Your task to perform on an android device: What's on my calendar tomorrow? Image 0: 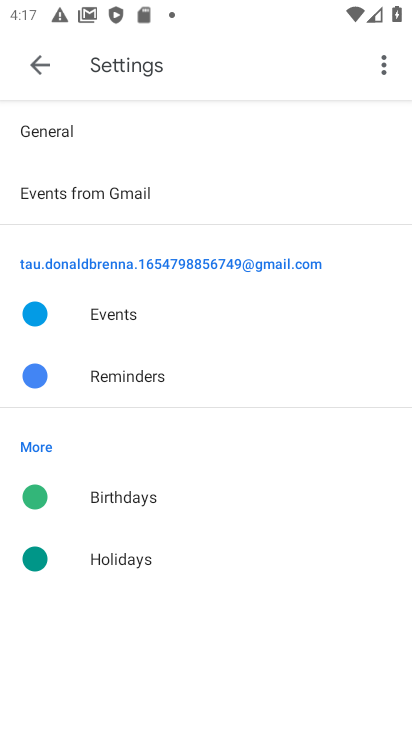
Step 0: press home button
Your task to perform on an android device: What's on my calendar tomorrow? Image 1: 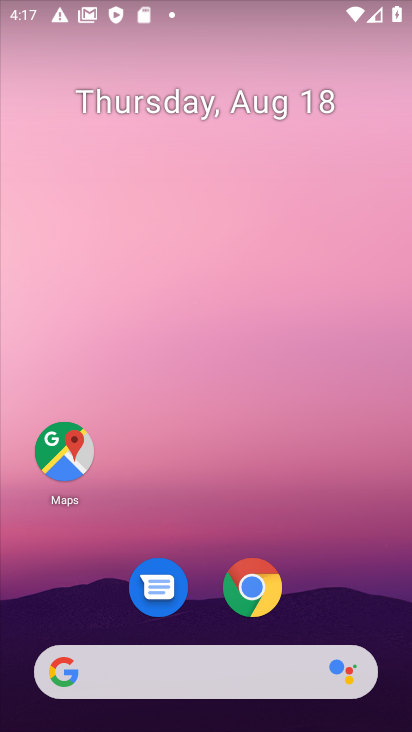
Step 1: drag from (349, 487) to (298, 87)
Your task to perform on an android device: What's on my calendar tomorrow? Image 2: 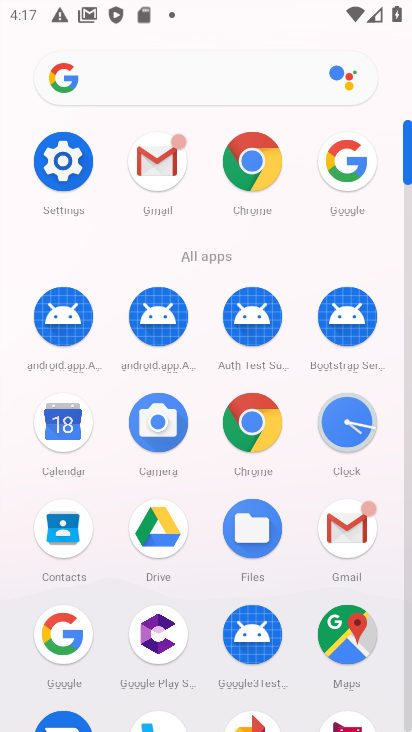
Step 2: click (54, 416)
Your task to perform on an android device: What's on my calendar tomorrow? Image 3: 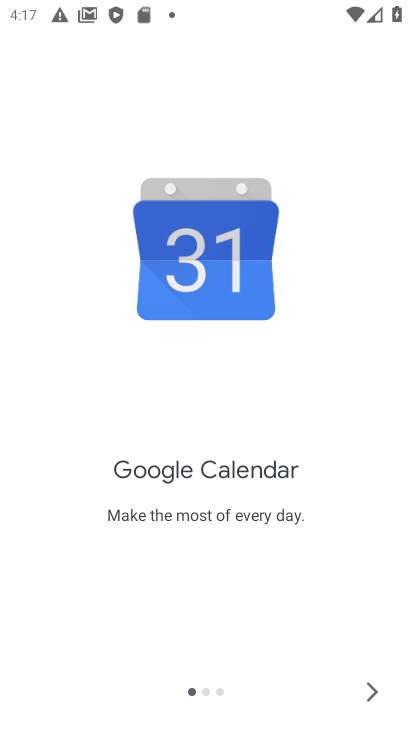
Step 3: click (369, 685)
Your task to perform on an android device: What's on my calendar tomorrow? Image 4: 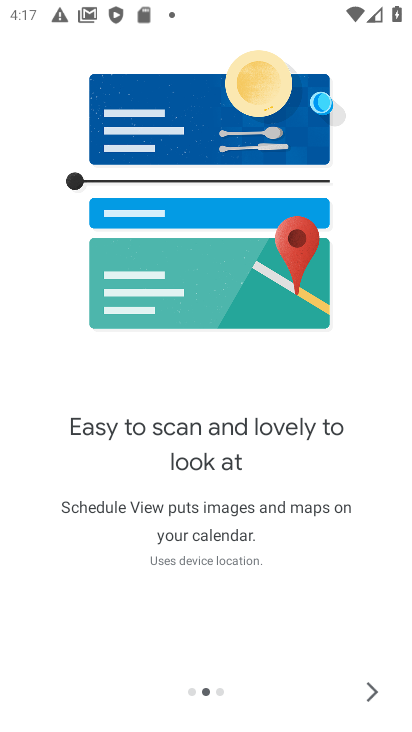
Step 4: click (369, 685)
Your task to perform on an android device: What's on my calendar tomorrow? Image 5: 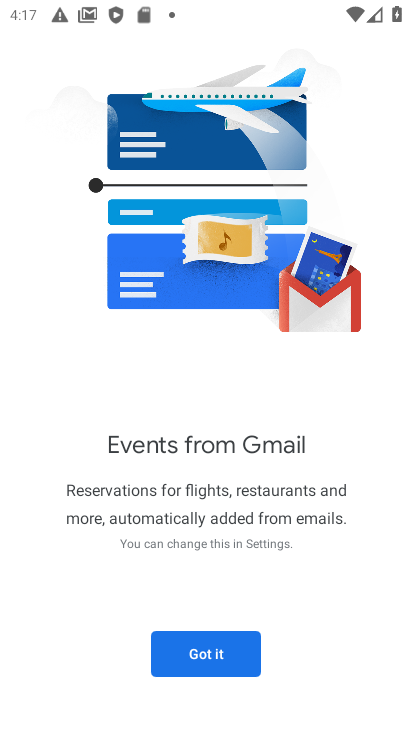
Step 5: click (207, 647)
Your task to perform on an android device: What's on my calendar tomorrow? Image 6: 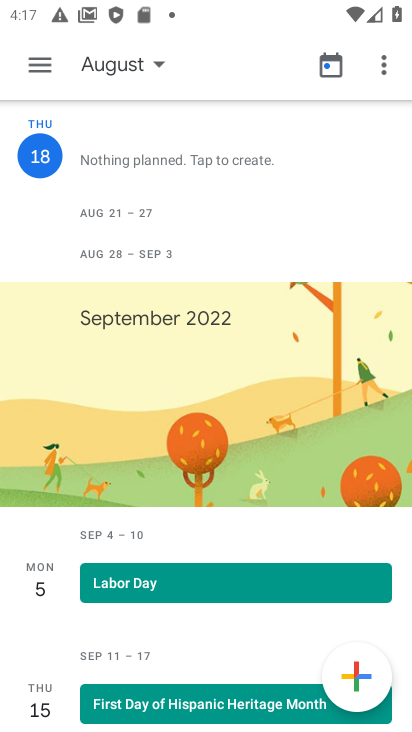
Step 6: click (139, 56)
Your task to perform on an android device: What's on my calendar tomorrow? Image 7: 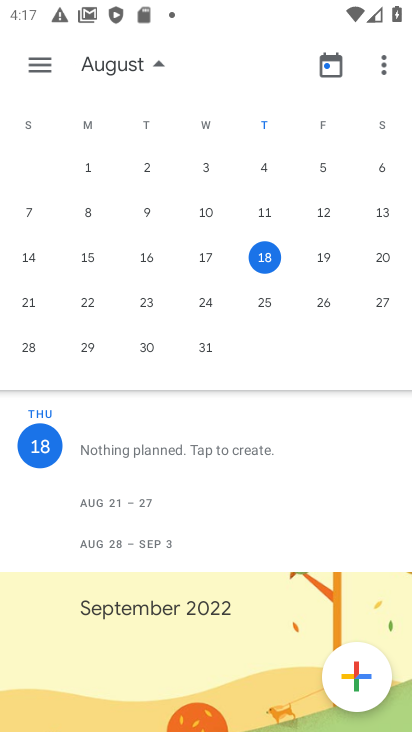
Step 7: click (315, 257)
Your task to perform on an android device: What's on my calendar tomorrow? Image 8: 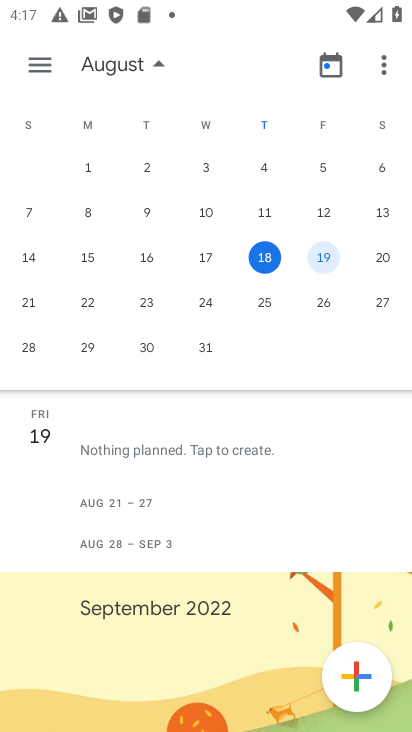
Step 8: task complete